Your task to perform on an android device: Open Google Maps Image 0: 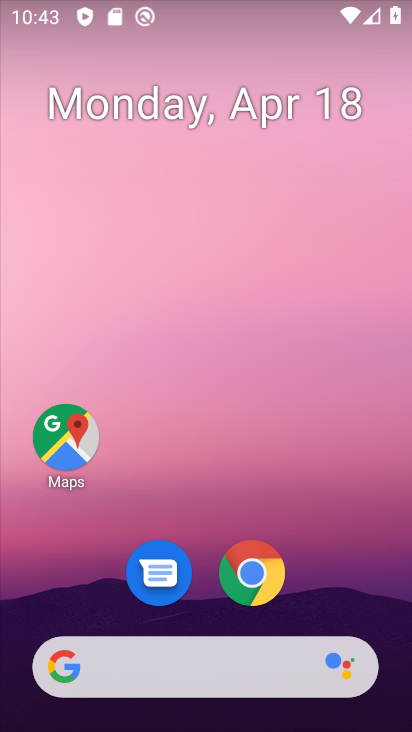
Step 0: click (66, 447)
Your task to perform on an android device: Open Google Maps Image 1: 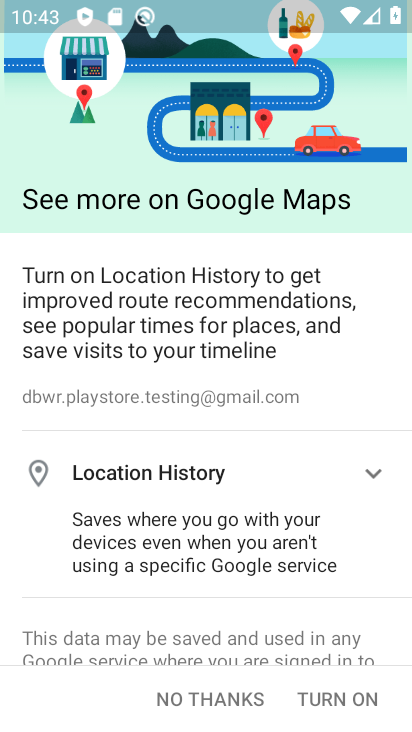
Step 1: click (208, 702)
Your task to perform on an android device: Open Google Maps Image 2: 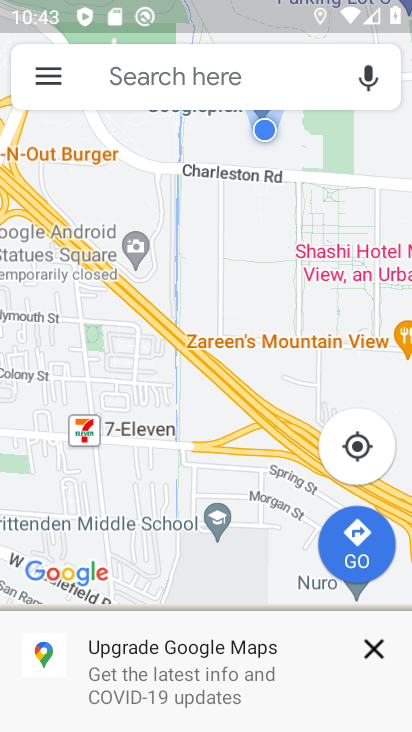
Step 2: click (370, 648)
Your task to perform on an android device: Open Google Maps Image 3: 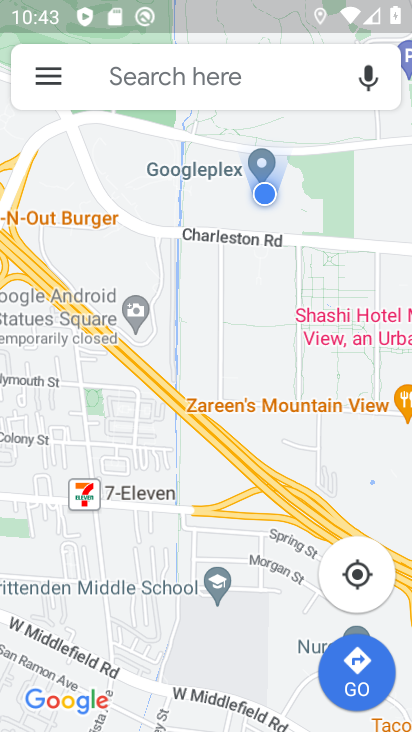
Step 3: task complete